Your task to perform on an android device: Open accessibility settings Image 0: 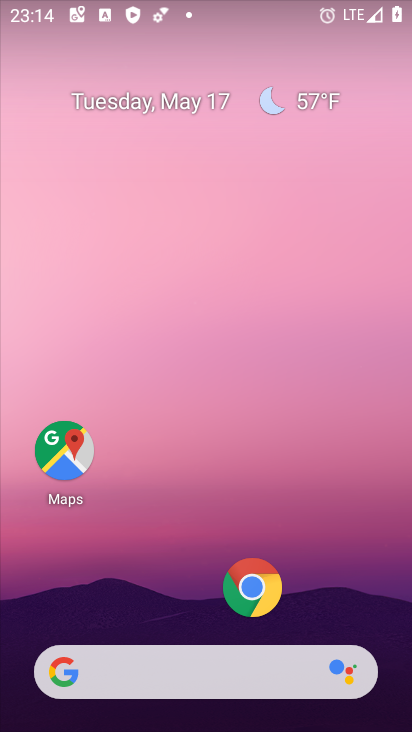
Step 0: drag from (18, 527) to (213, 221)
Your task to perform on an android device: Open accessibility settings Image 1: 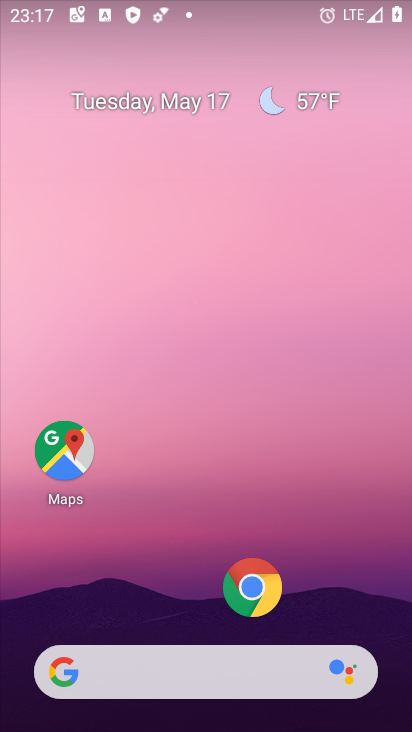
Step 1: drag from (27, 549) to (200, 179)
Your task to perform on an android device: Open accessibility settings Image 2: 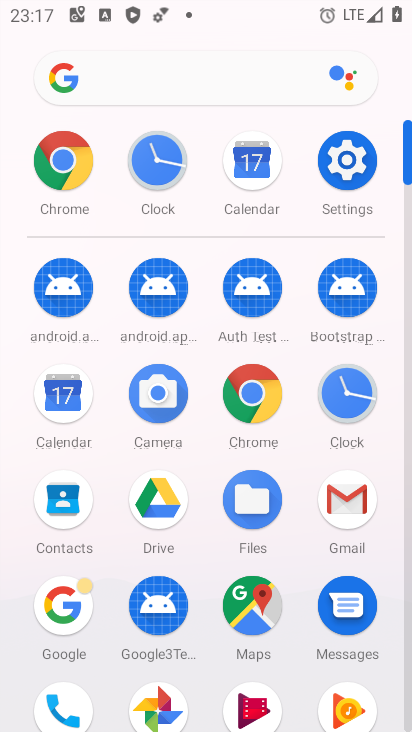
Step 2: click (339, 162)
Your task to perform on an android device: Open accessibility settings Image 3: 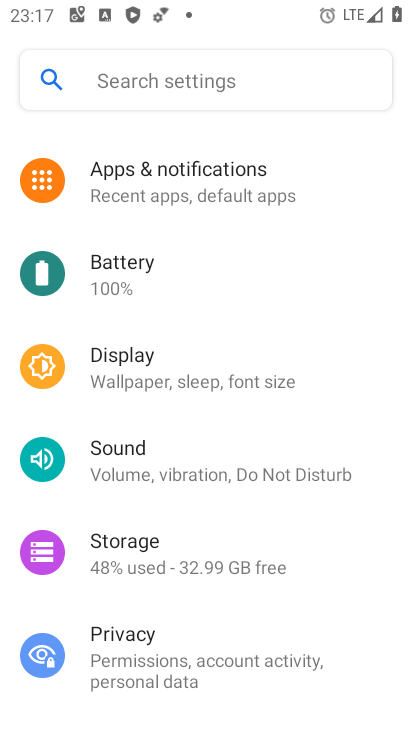
Step 3: drag from (73, 668) to (302, 161)
Your task to perform on an android device: Open accessibility settings Image 4: 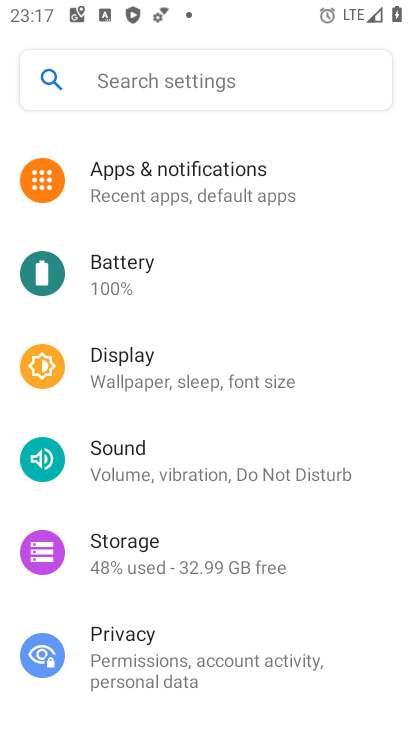
Step 4: drag from (146, 633) to (308, 243)
Your task to perform on an android device: Open accessibility settings Image 5: 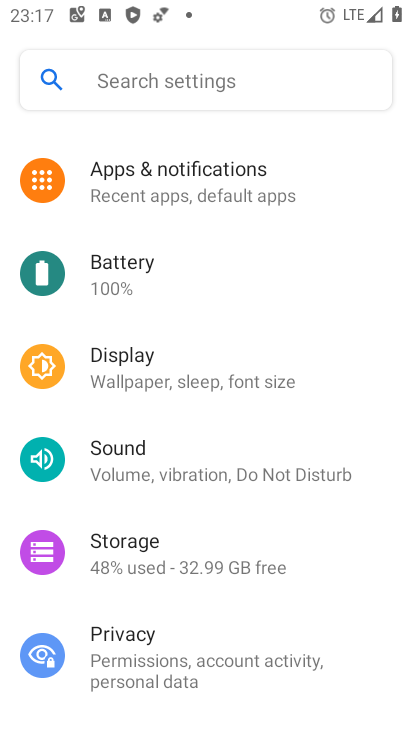
Step 5: drag from (115, 689) to (270, 291)
Your task to perform on an android device: Open accessibility settings Image 6: 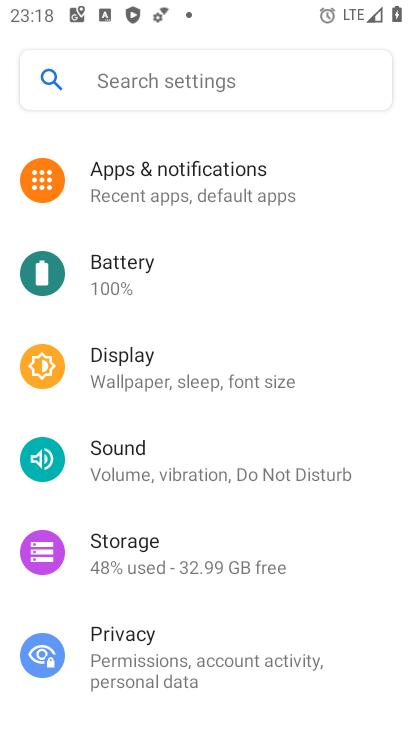
Step 6: drag from (40, 675) to (219, 317)
Your task to perform on an android device: Open accessibility settings Image 7: 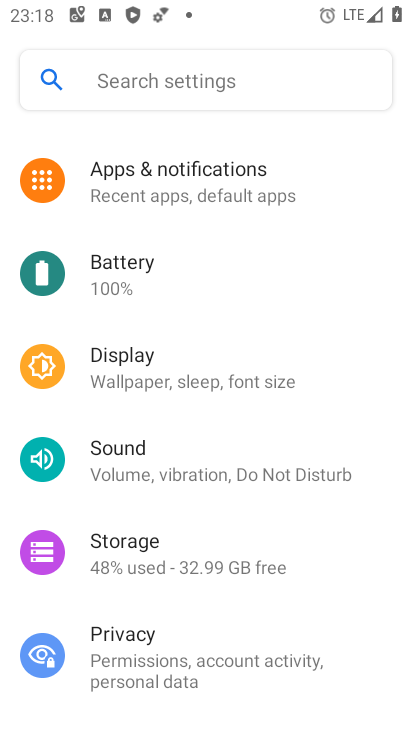
Step 7: drag from (4, 696) to (201, 313)
Your task to perform on an android device: Open accessibility settings Image 8: 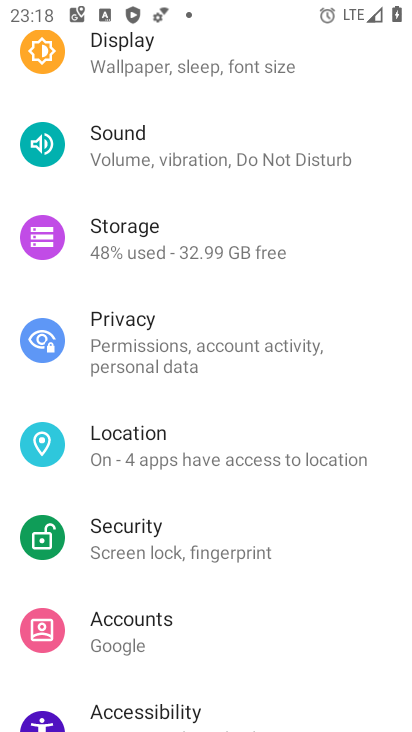
Step 8: click (104, 728)
Your task to perform on an android device: Open accessibility settings Image 9: 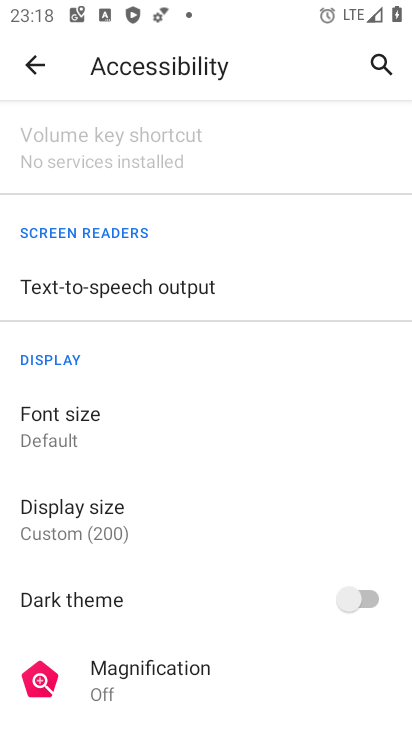
Step 9: task complete